Your task to perform on an android device: Play the last video I watched on Youtube Image 0: 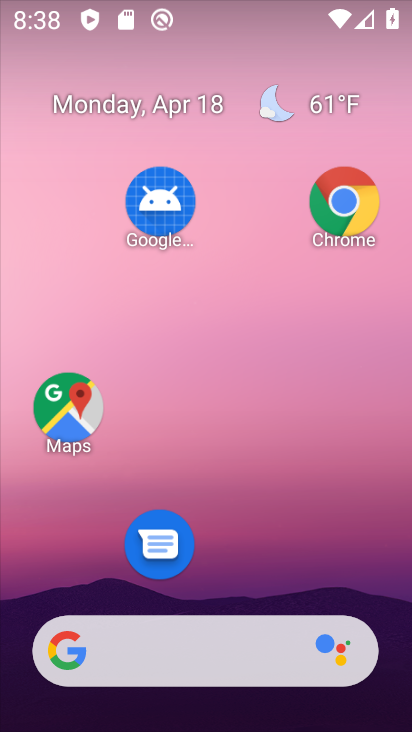
Step 0: drag from (218, 585) to (177, 4)
Your task to perform on an android device: Play the last video I watched on Youtube Image 1: 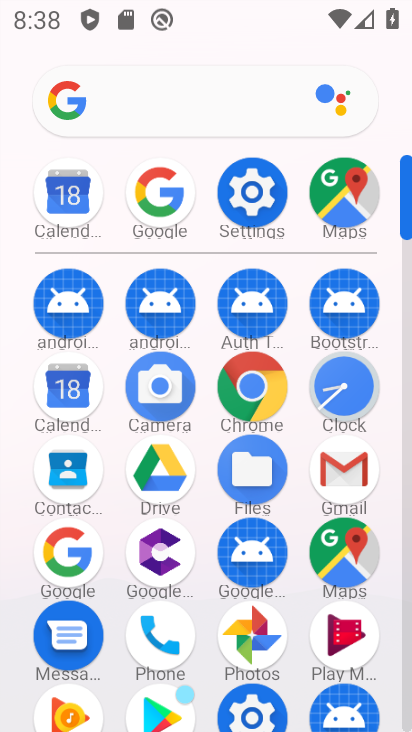
Step 1: drag from (197, 597) to (126, 91)
Your task to perform on an android device: Play the last video I watched on Youtube Image 2: 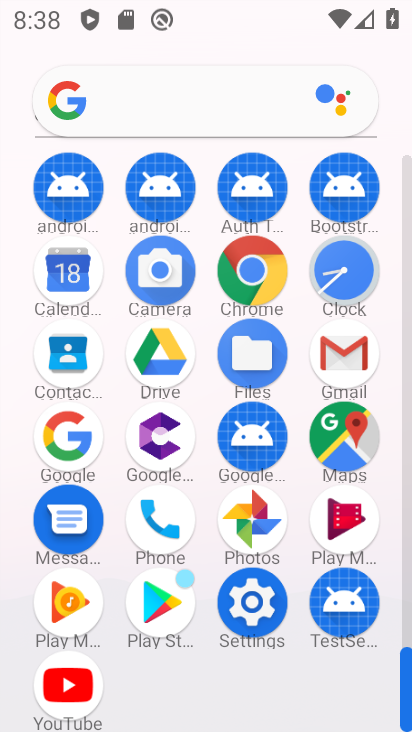
Step 2: click (80, 685)
Your task to perform on an android device: Play the last video I watched on Youtube Image 3: 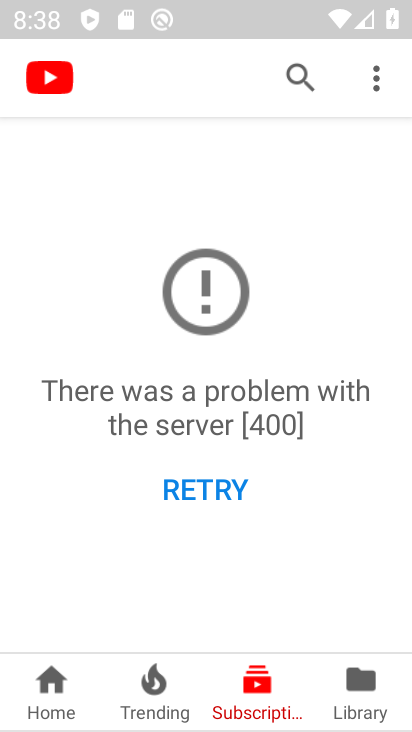
Step 3: click (70, 702)
Your task to perform on an android device: Play the last video I watched on Youtube Image 4: 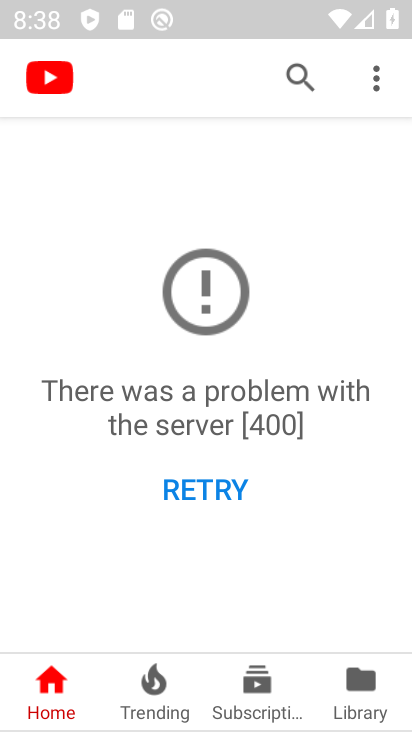
Step 4: click (357, 696)
Your task to perform on an android device: Play the last video I watched on Youtube Image 5: 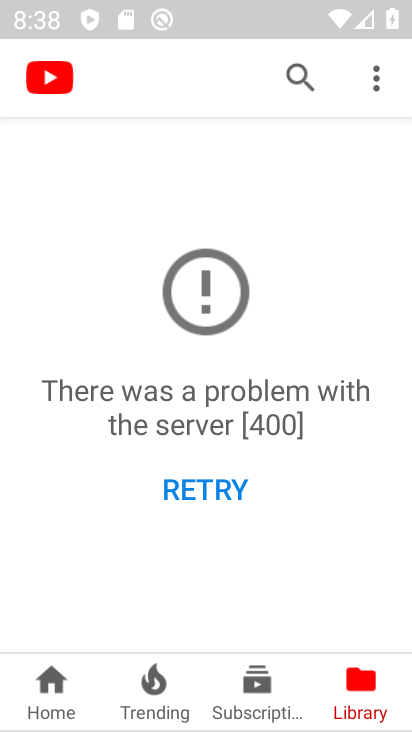
Step 5: task complete